Your task to perform on an android device: See recent photos Image 0: 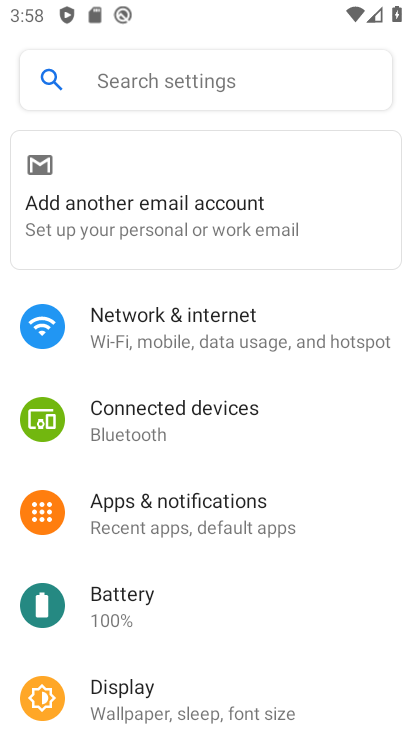
Step 0: press back button
Your task to perform on an android device: See recent photos Image 1: 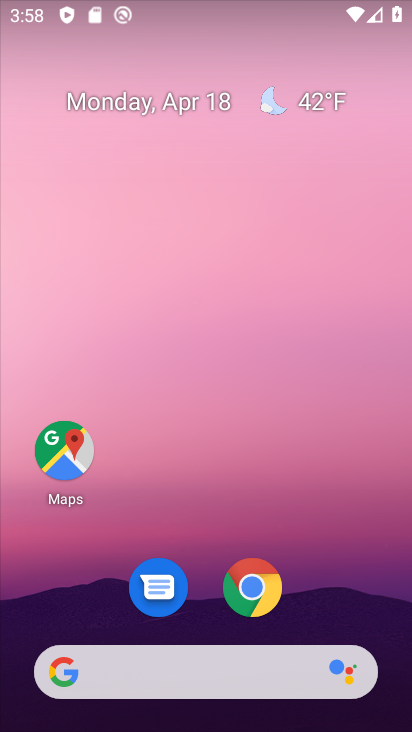
Step 1: drag from (139, 622) to (232, 160)
Your task to perform on an android device: See recent photos Image 2: 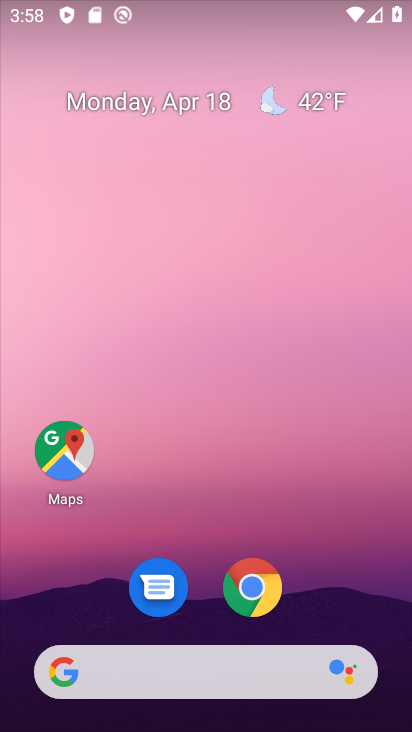
Step 2: drag from (186, 641) to (287, 96)
Your task to perform on an android device: See recent photos Image 3: 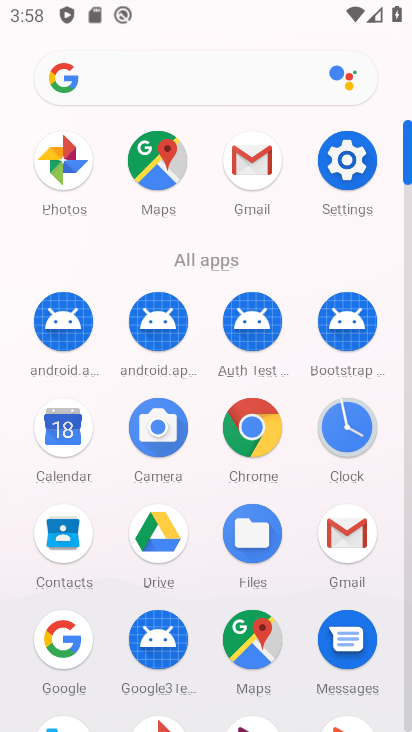
Step 3: click (60, 159)
Your task to perform on an android device: See recent photos Image 4: 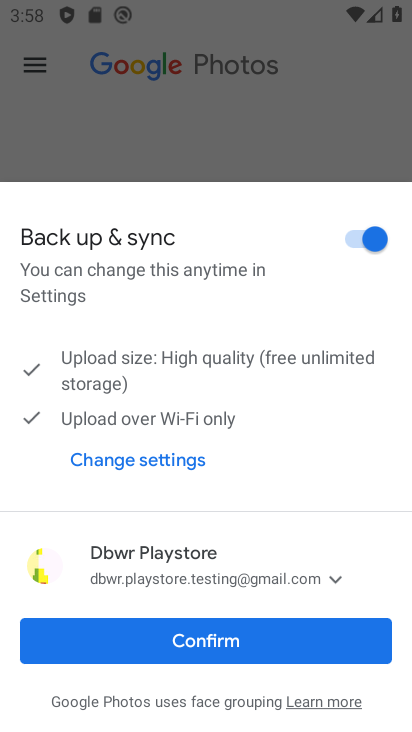
Step 4: click (235, 630)
Your task to perform on an android device: See recent photos Image 5: 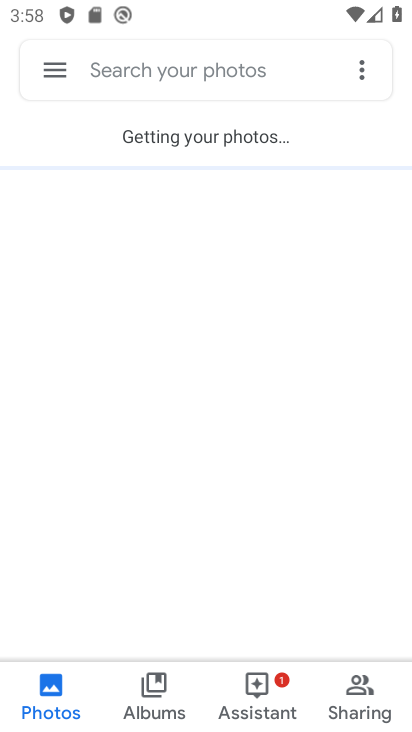
Step 5: task complete